Your task to perform on an android device: turn smart compose on in the gmail app Image 0: 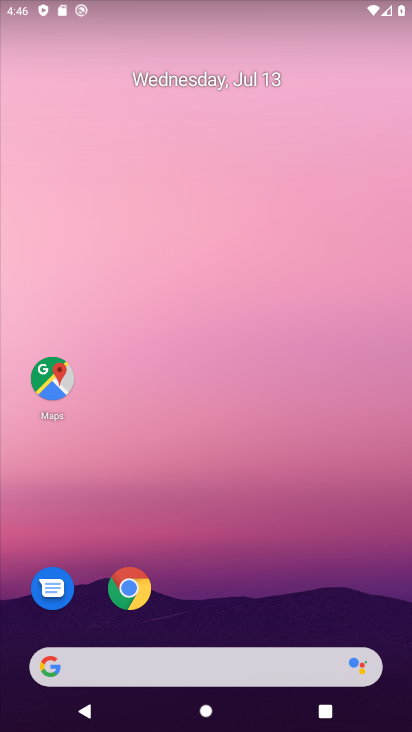
Step 0: drag from (275, 613) to (224, 9)
Your task to perform on an android device: turn smart compose on in the gmail app Image 1: 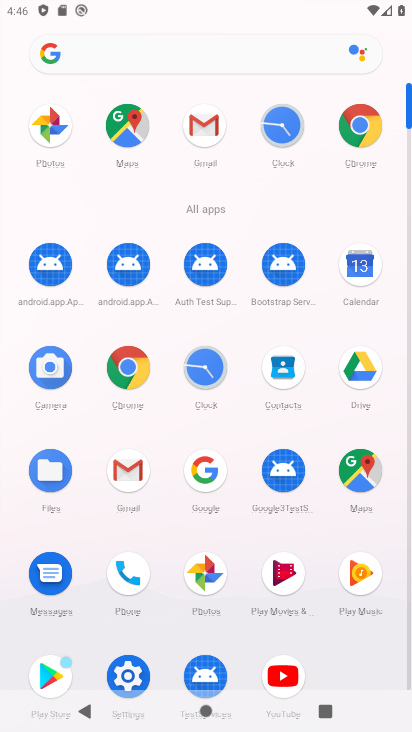
Step 1: click (116, 457)
Your task to perform on an android device: turn smart compose on in the gmail app Image 2: 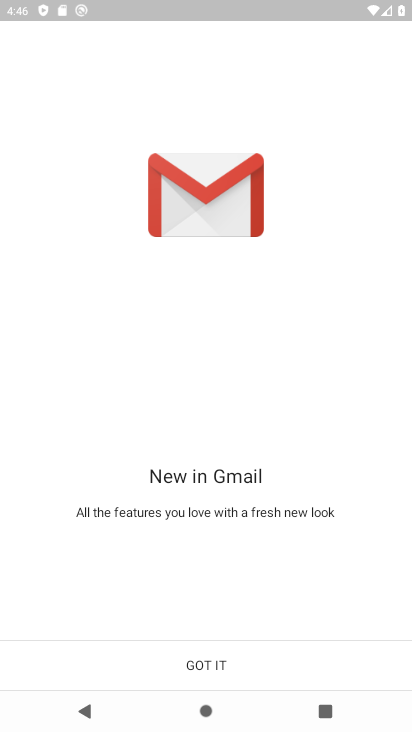
Step 2: click (195, 660)
Your task to perform on an android device: turn smart compose on in the gmail app Image 3: 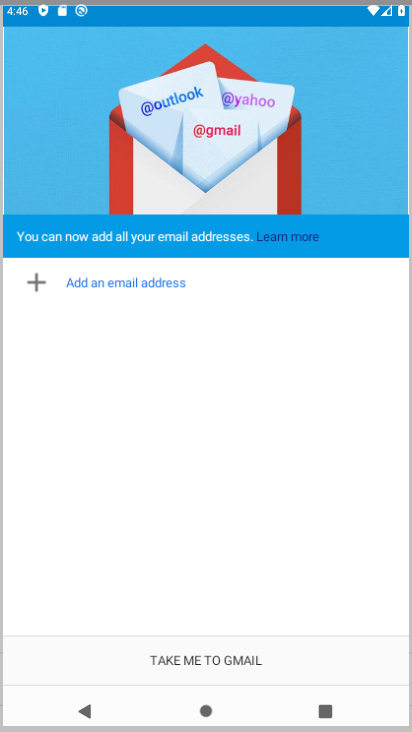
Step 3: click (195, 660)
Your task to perform on an android device: turn smart compose on in the gmail app Image 4: 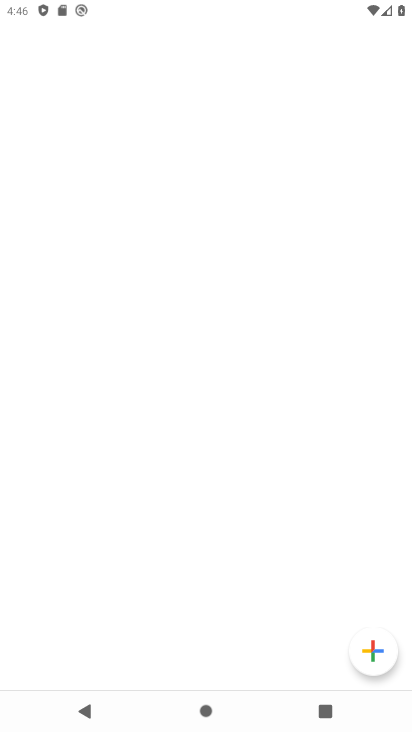
Step 4: click (195, 660)
Your task to perform on an android device: turn smart compose on in the gmail app Image 5: 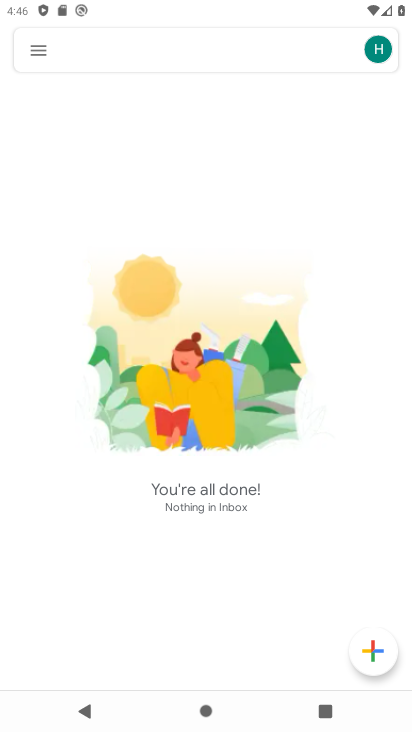
Step 5: click (27, 48)
Your task to perform on an android device: turn smart compose on in the gmail app Image 6: 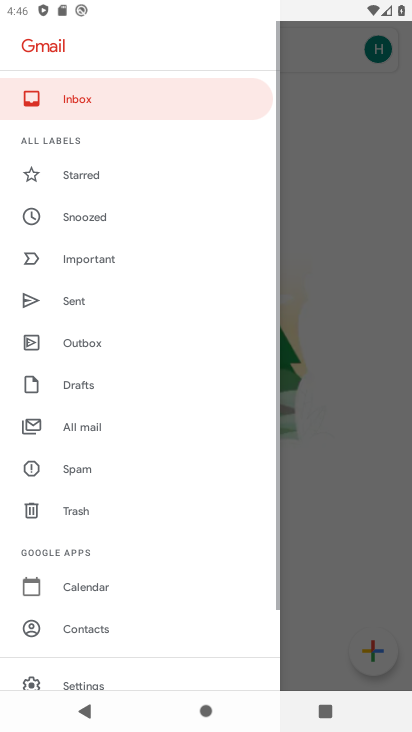
Step 6: drag from (161, 625) to (146, 267)
Your task to perform on an android device: turn smart compose on in the gmail app Image 7: 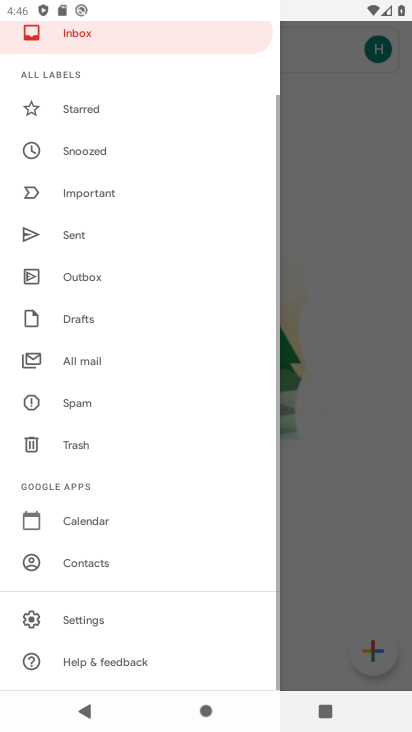
Step 7: click (101, 632)
Your task to perform on an android device: turn smart compose on in the gmail app Image 8: 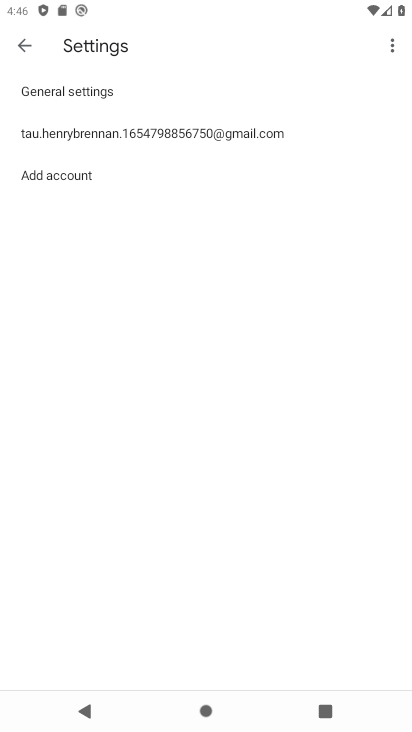
Step 8: click (57, 126)
Your task to perform on an android device: turn smart compose on in the gmail app Image 9: 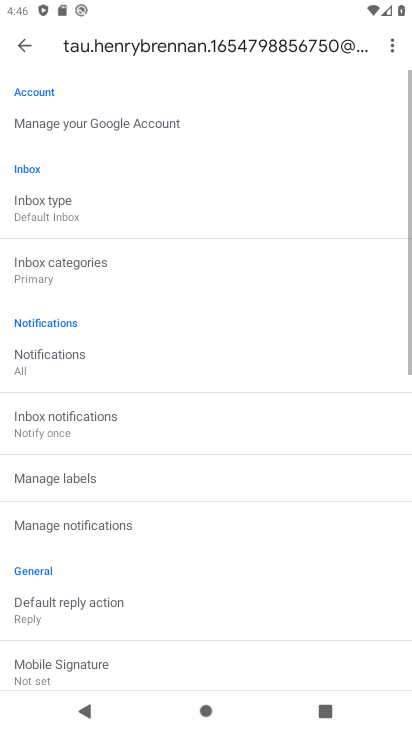
Step 9: task complete